Your task to perform on an android device: Set the phone to "Do not disturb". Image 0: 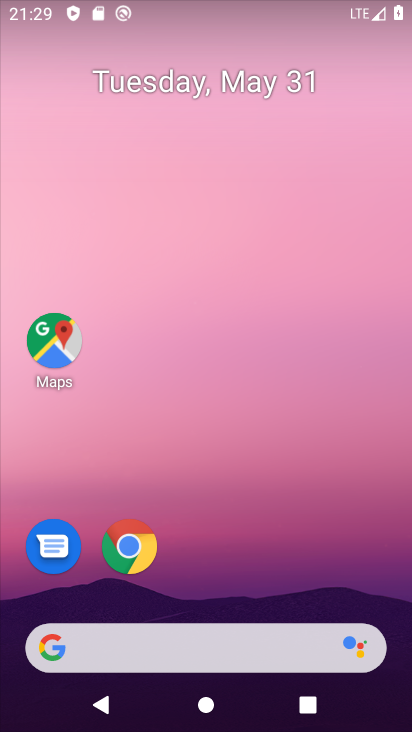
Step 0: drag from (408, 699) to (368, 111)
Your task to perform on an android device: Set the phone to "Do not disturb". Image 1: 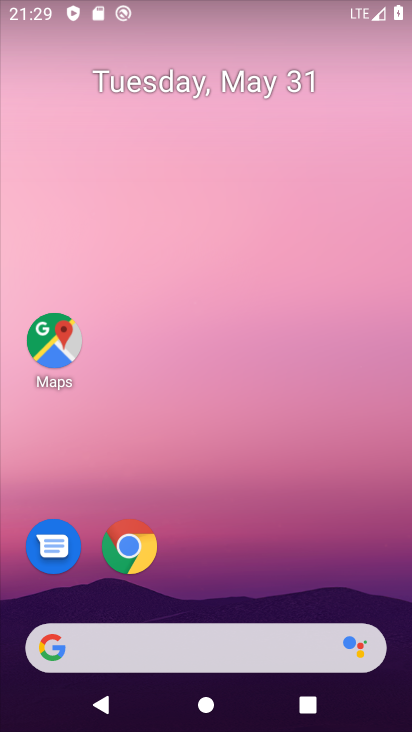
Step 1: drag from (391, 680) to (342, 95)
Your task to perform on an android device: Set the phone to "Do not disturb". Image 2: 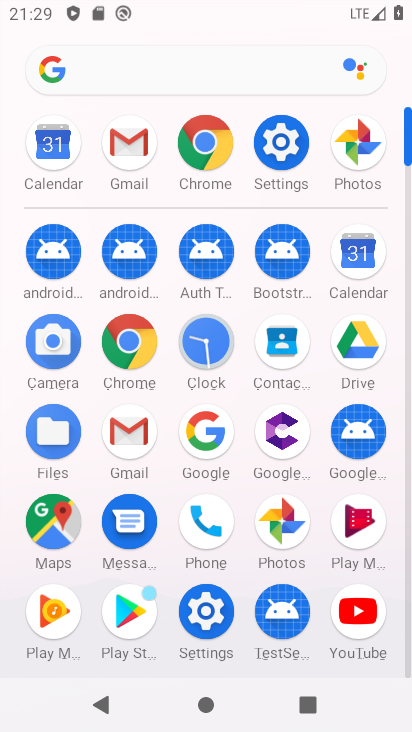
Step 2: click (275, 140)
Your task to perform on an android device: Set the phone to "Do not disturb". Image 3: 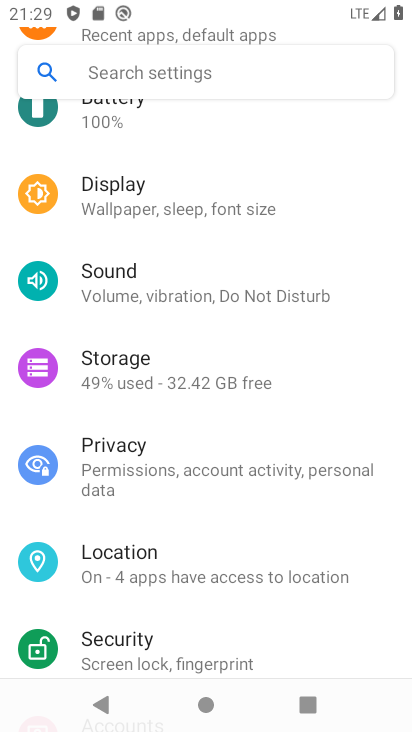
Step 3: click (146, 297)
Your task to perform on an android device: Set the phone to "Do not disturb". Image 4: 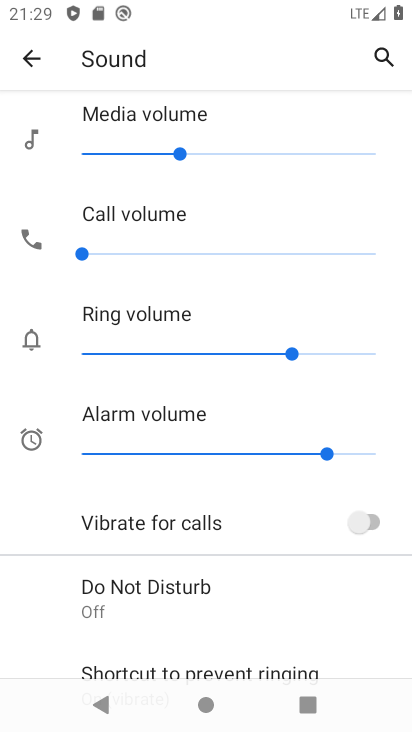
Step 4: drag from (245, 622) to (269, 327)
Your task to perform on an android device: Set the phone to "Do not disturb". Image 5: 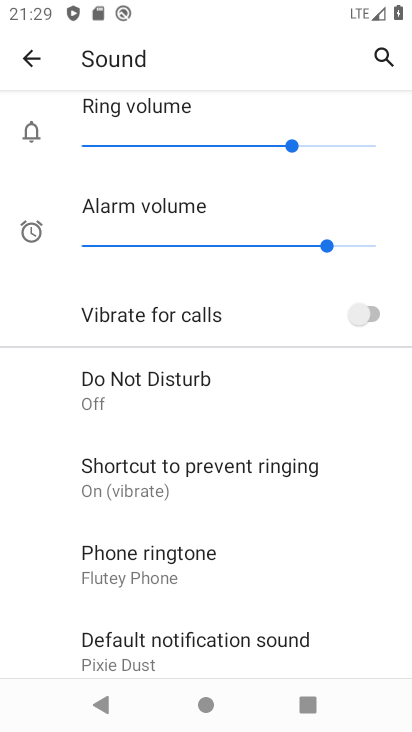
Step 5: click (110, 397)
Your task to perform on an android device: Set the phone to "Do not disturb". Image 6: 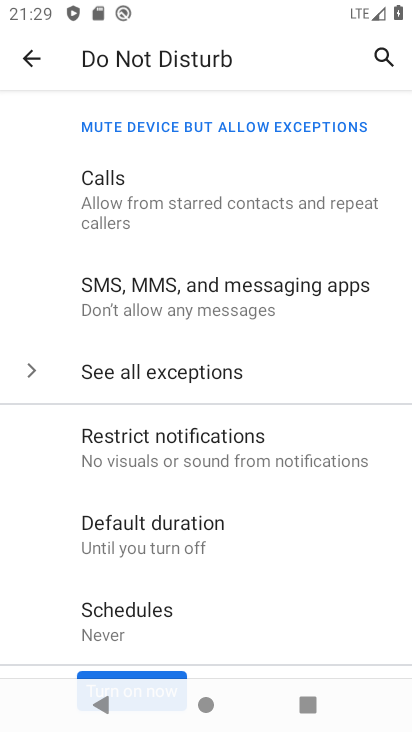
Step 6: drag from (267, 606) to (281, 398)
Your task to perform on an android device: Set the phone to "Do not disturb". Image 7: 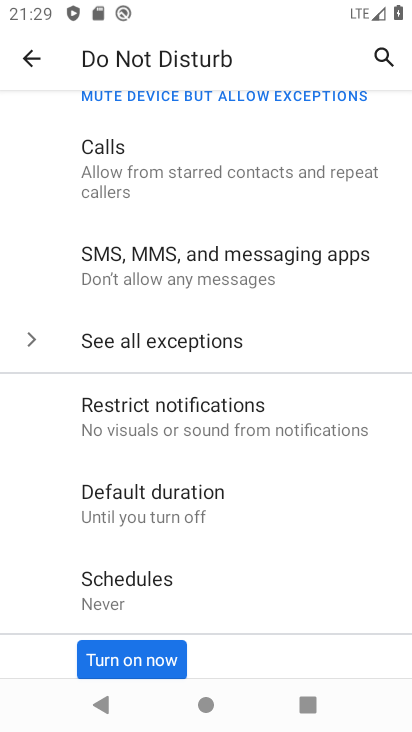
Step 7: click (169, 661)
Your task to perform on an android device: Set the phone to "Do not disturb". Image 8: 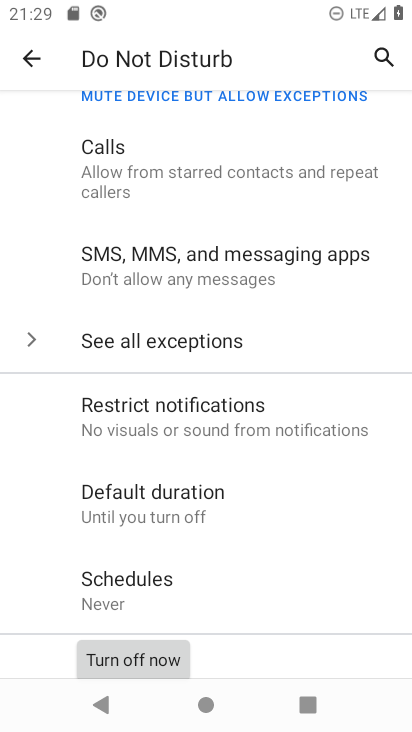
Step 8: task complete